Your task to perform on an android device: Show me productivity apps on the Play Store Image 0: 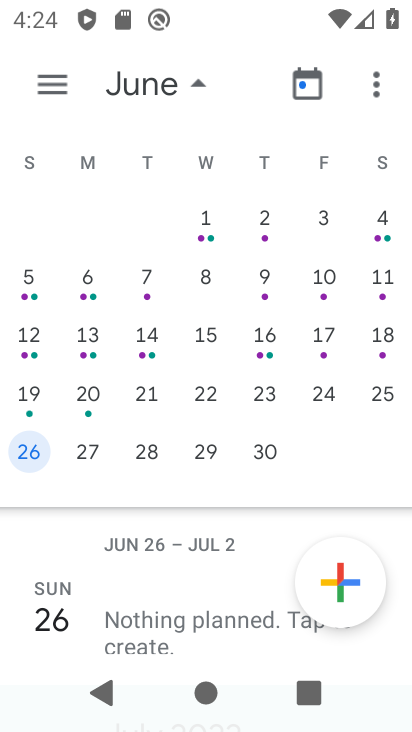
Step 0: press home button
Your task to perform on an android device: Show me productivity apps on the Play Store Image 1: 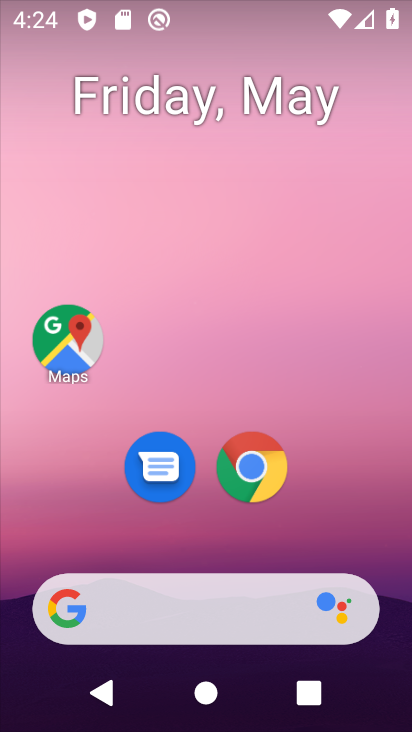
Step 1: drag from (318, 527) to (266, 124)
Your task to perform on an android device: Show me productivity apps on the Play Store Image 2: 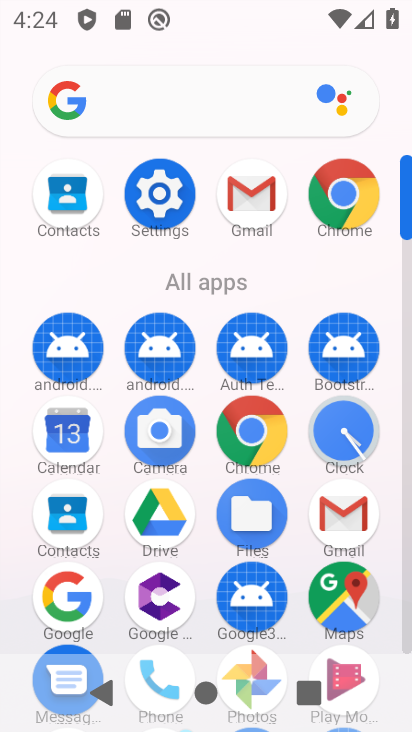
Step 2: drag from (224, 555) to (319, 166)
Your task to perform on an android device: Show me productivity apps on the Play Store Image 3: 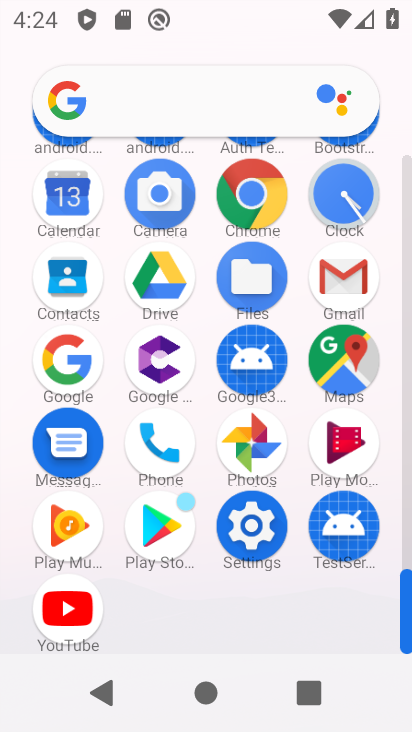
Step 3: click (162, 508)
Your task to perform on an android device: Show me productivity apps on the Play Store Image 4: 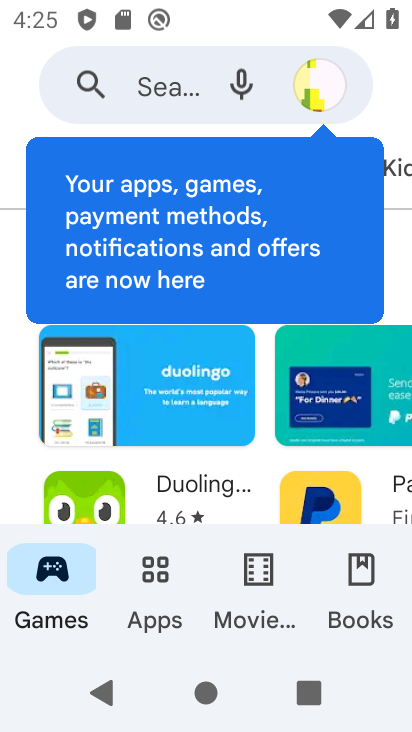
Step 4: drag from (179, 427) to (145, 65)
Your task to perform on an android device: Show me productivity apps on the Play Store Image 5: 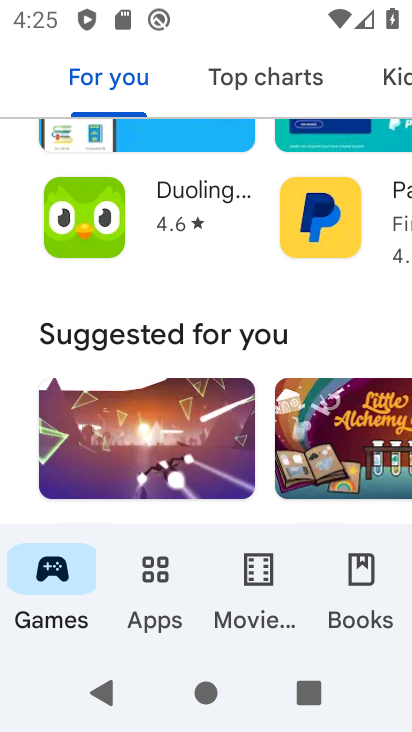
Step 5: drag from (160, 466) to (167, 83)
Your task to perform on an android device: Show me productivity apps on the Play Store Image 6: 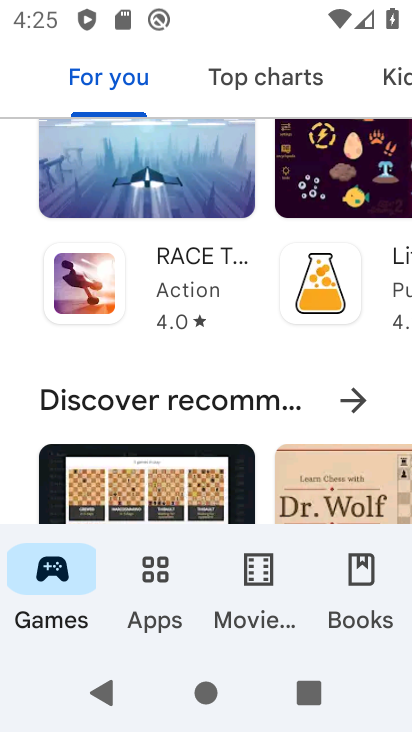
Step 6: drag from (194, 485) to (206, 135)
Your task to perform on an android device: Show me productivity apps on the Play Store Image 7: 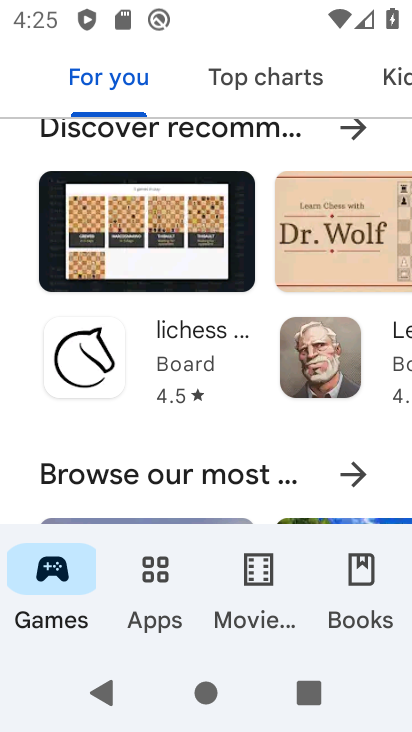
Step 7: drag from (174, 479) to (193, 167)
Your task to perform on an android device: Show me productivity apps on the Play Store Image 8: 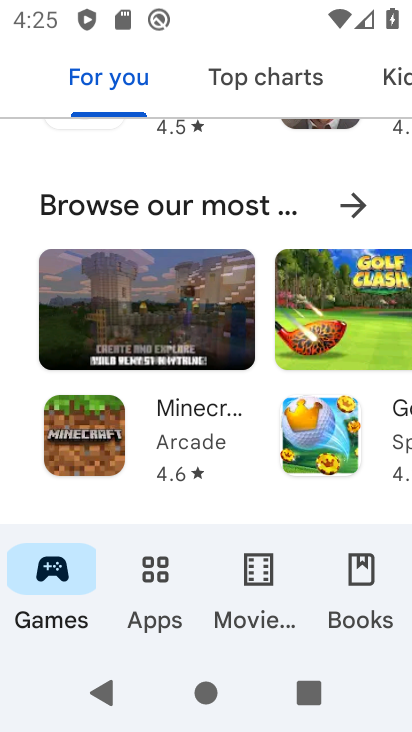
Step 8: drag from (229, 473) to (230, 155)
Your task to perform on an android device: Show me productivity apps on the Play Store Image 9: 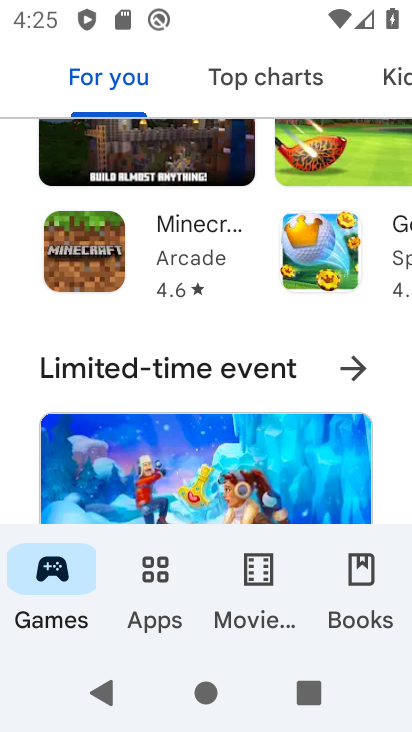
Step 9: drag from (186, 490) to (206, 184)
Your task to perform on an android device: Show me productivity apps on the Play Store Image 10: 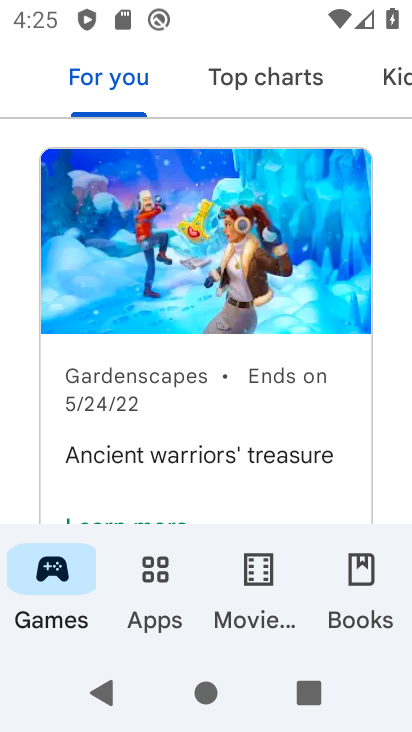
Step 10: drag from (151, 518) to (148, 258)
Your task to perform on an android device: Show me productivity apps on the Play Store Image 11: 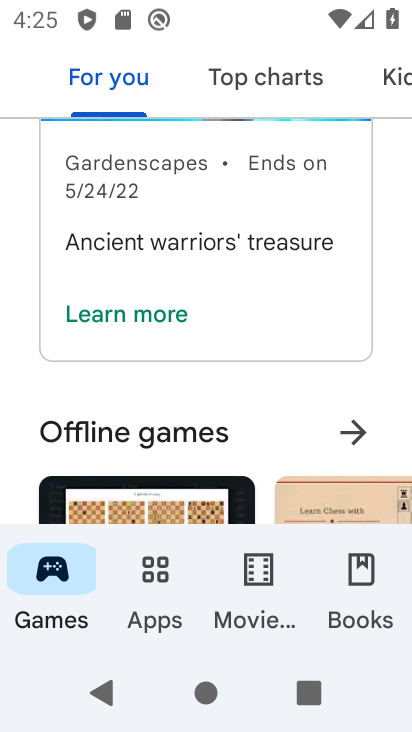
Step 11: drag from (139, 479) to (147, 201)
Your task to perform on an android device: Show me productivity apps on the Play Store Image 12: 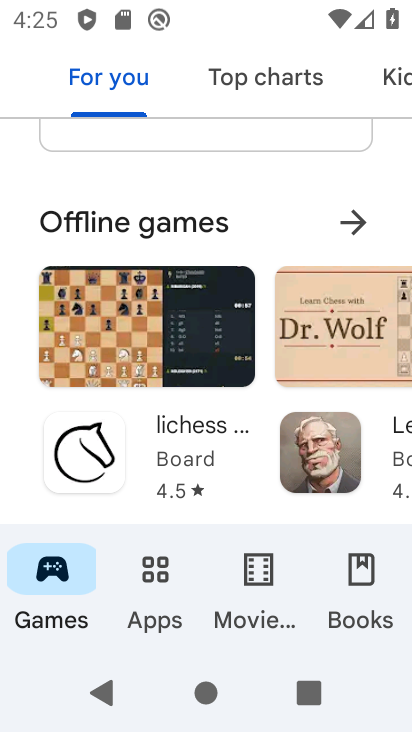
Step 12: drag from (206, 461) to (181, 190)
Your task to perform on an android device: Show me productivity apps on the Play Store Image 13: 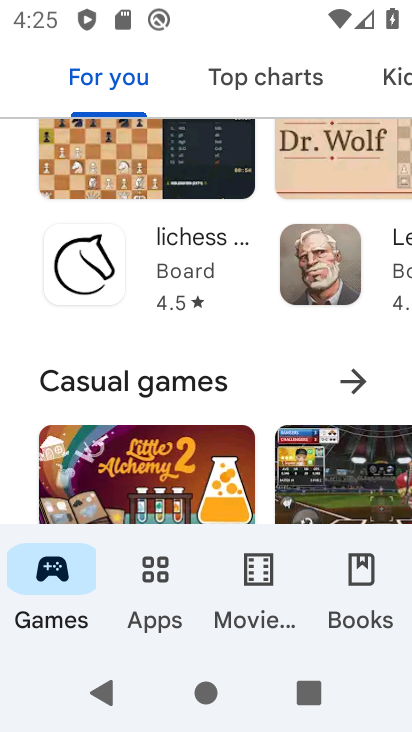
Step 13: drag from (188, 420) to (223, 84)
Your task to perform on an android device: Show me productivity apps on the Play Store Image 14: 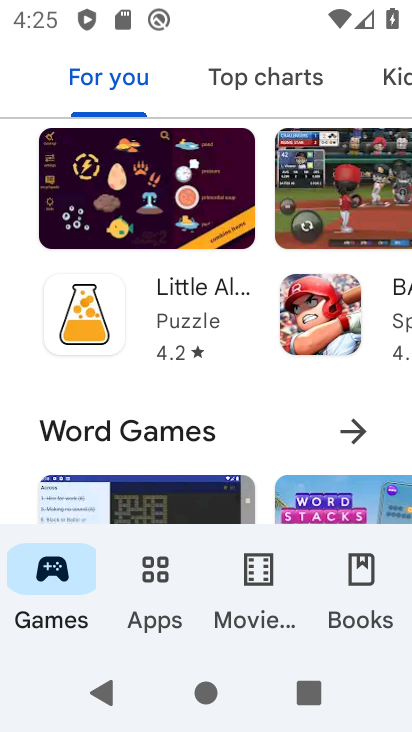
Step 14: drag from (181, 468) to (206, 156)
Your task to perform on an android device: Show me productivity apps on the Play Store Image 15: 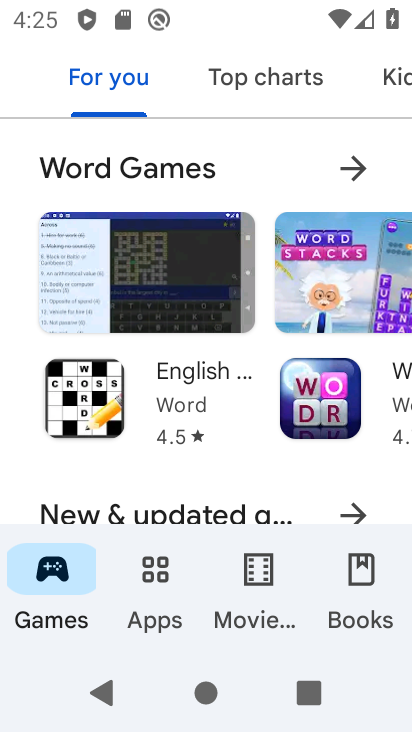
Step 15: drag from (192, 443) to (208, 123)
Your task to perform on an android device: Show me productivity apps on the Play Store Image 16: 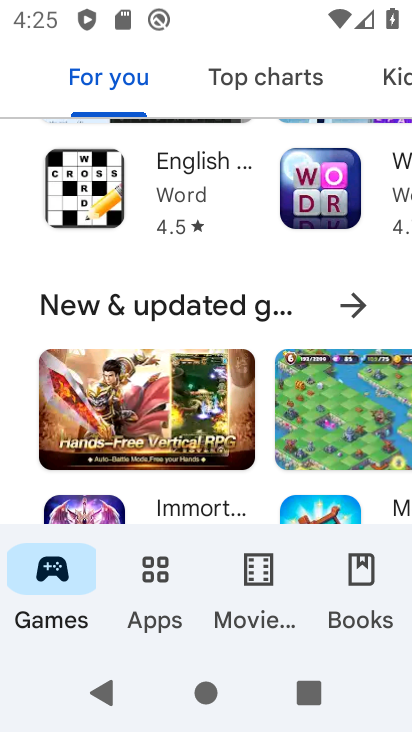
Step 16: drag from (154, 435) to (204, 121)
Your task to perform on an android device: Show me productivity apps on the Play Store Image 17: 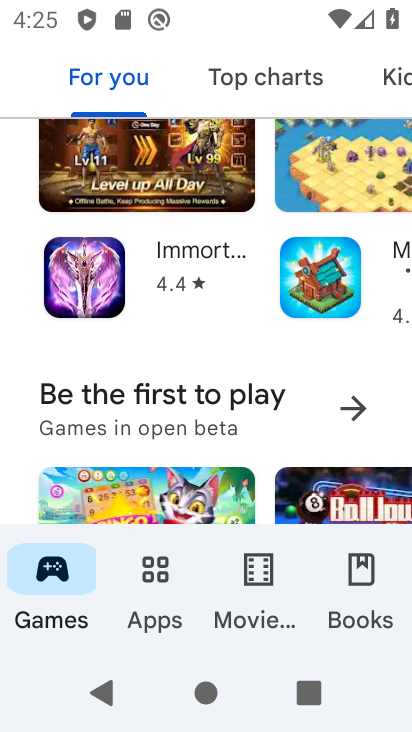
Step 17: drag from (169, 474) to (223, 220)
Your task to perform on an android device: Show me productivity apps on the Play Store Image 18: 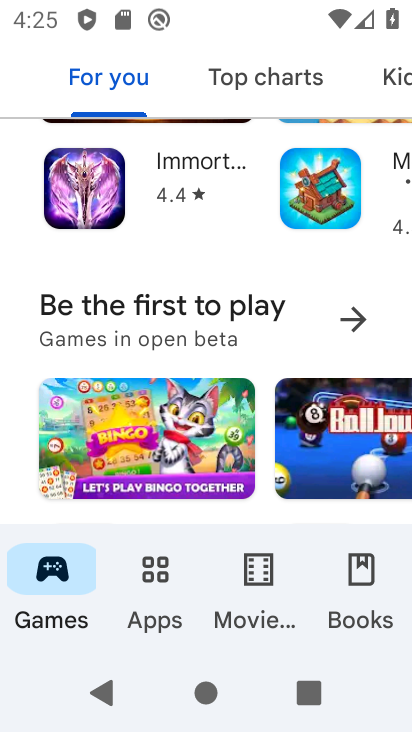
Step 18: drag from (183, 603) to (208, 198)
Your task to perform on an android device: Show me productivity apps on the Play Store Image 19: 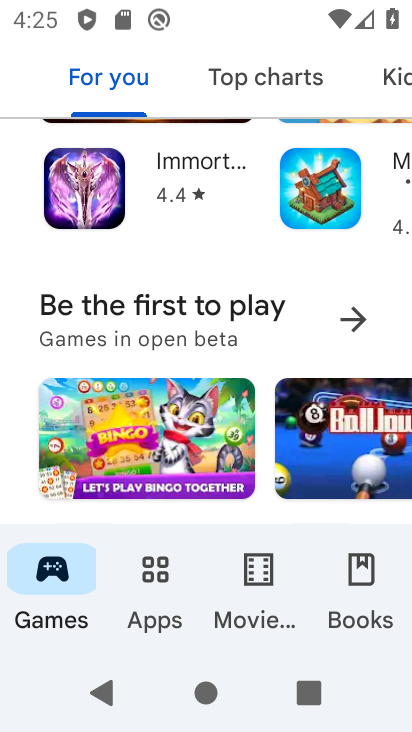
Step 19: drag from (241, 402) to (235, 101)
Your task to perform on an android device: Show me productivity apps on the Play Store Image 20: 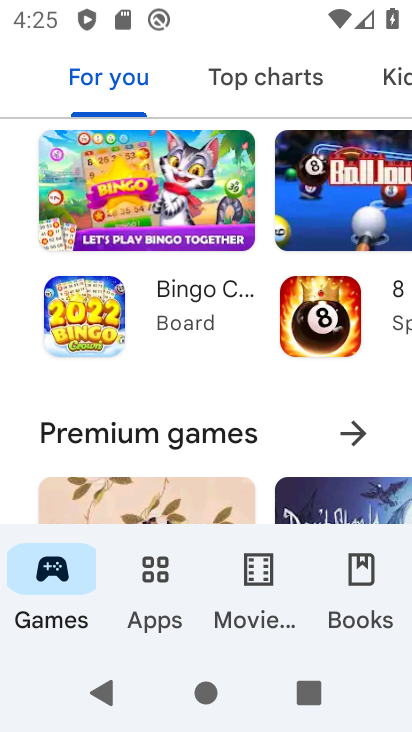
Step 20: drag from (194, 431) to (208, 99)
Your task to perform on an android device: Show me productivity apps on the Play Store Image 21: 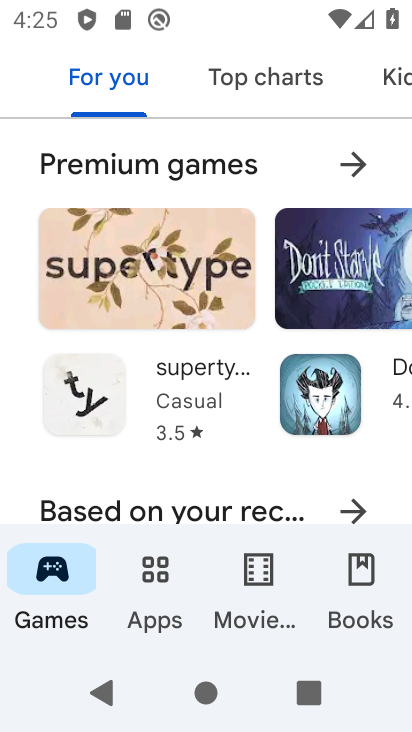
Step 21: drag from (225, 426) to (230, 156)
Your task to perform on an android device: Show me productivity apps on the Play Store Image 22: 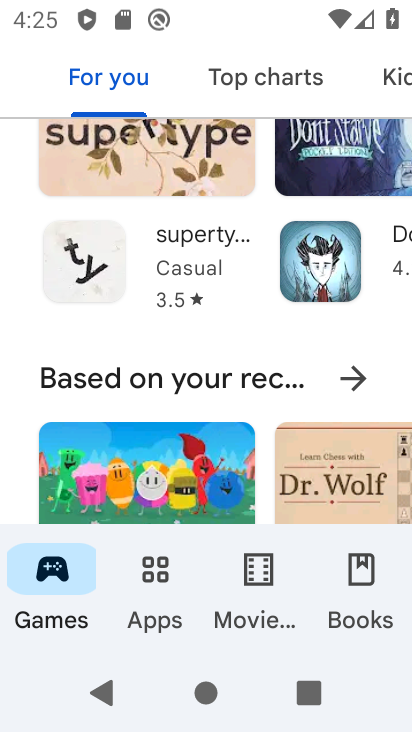
Step 22: drag from (283, 432) to (281, 95)
Your task to perform on an android device: Show me productivity apps on the Play Store Image 23: 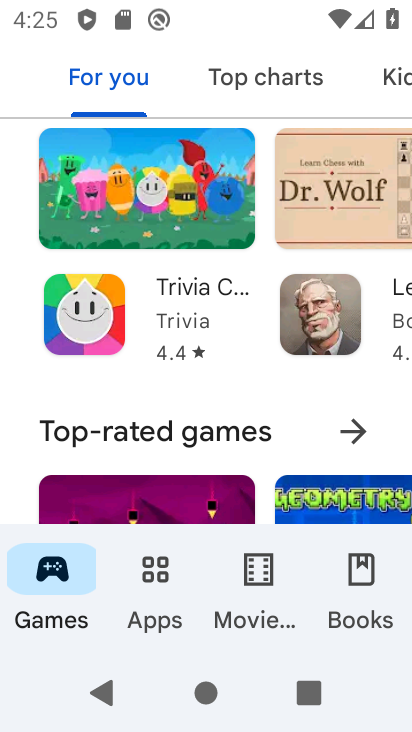
Step 23: drag from (200, 449) to (249, 129)
Your task to perform on an android device: Show me productivity apps on the Play Store Image 24: 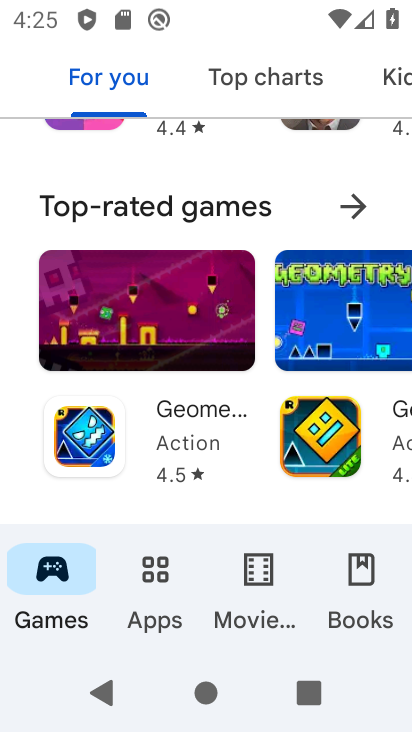
Step 24: drag from (214, 443) to (245, 151)
Your task to perform on an android device: Show me productivity apps on the Play Store Image 25: 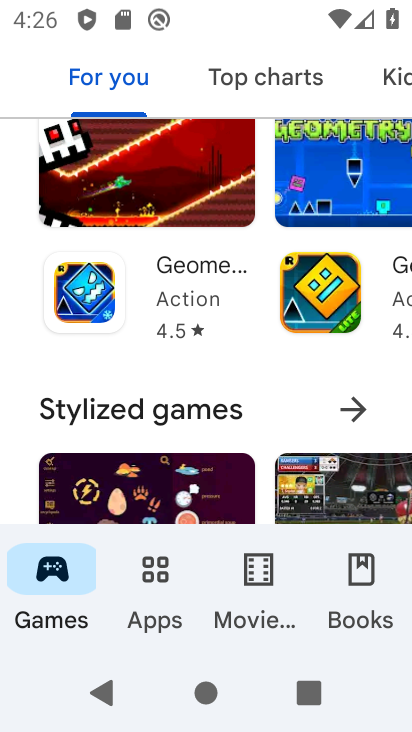
Step 25: drag from (242, 435) to (282, 163)
Your task to perform on an android device: Show me productivity apps on the Play Store Image 26: 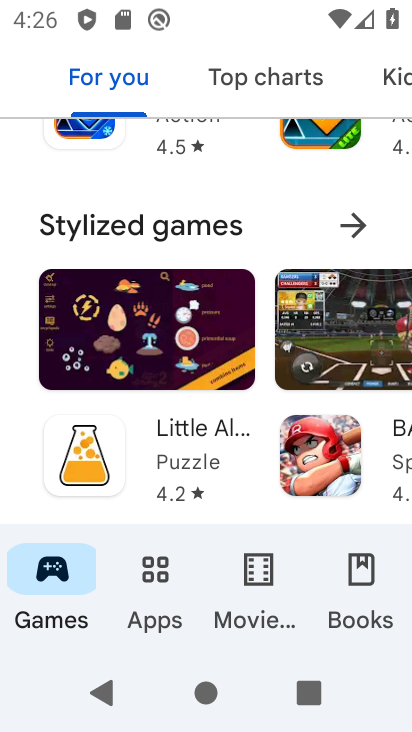
Step 26: drag from (221, 464) to (245, 121)
Your task to perform on an android device: Show me productivity apps on the Play Store Image 27: 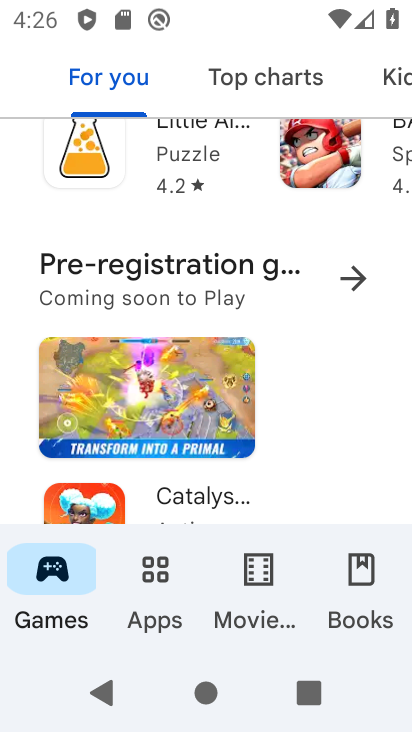
Step 27: drag from (201, 435) to (217, 109)
Your task to perform on an android device: Show me productivity apps on the Play Store Image 28: 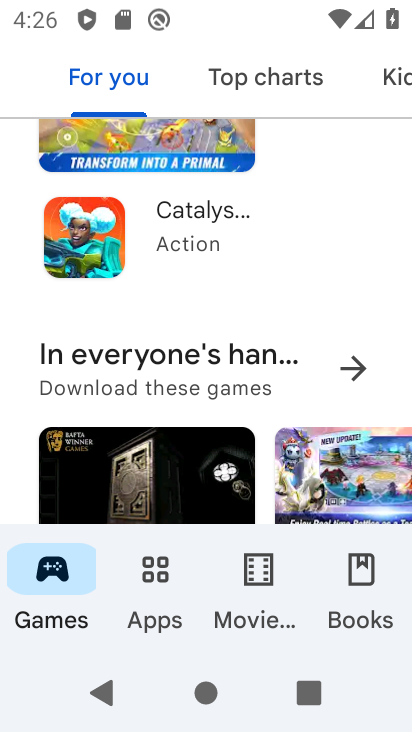
Step 28: drag from (176, 409) to (246, 138)
Your task to perform on an android device: Show me productivity apps on the Play Store Image 29: 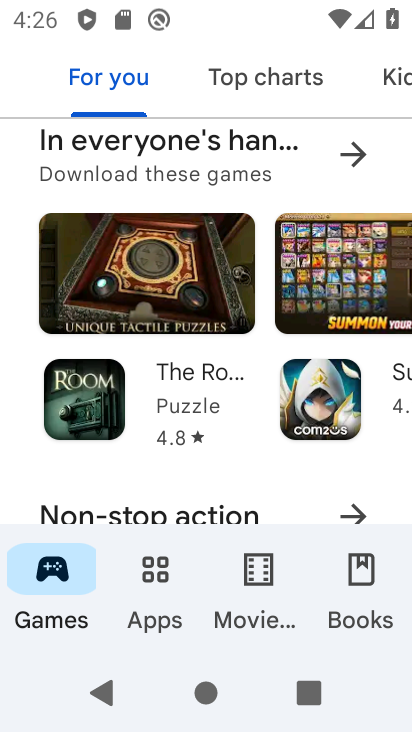
Step 29: drag from (215, 432) to (254, 136)
Your task to perform on an android device: Show me productivity apps on the Play Store Image 30: 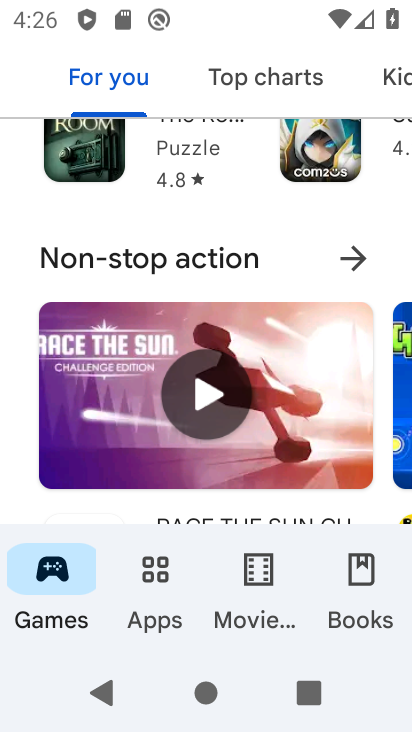
Step 30: drag from (215, 394) to (233, 116)
Your task to perform on an android device: Show me productivity apps on the Play Store Image 31: 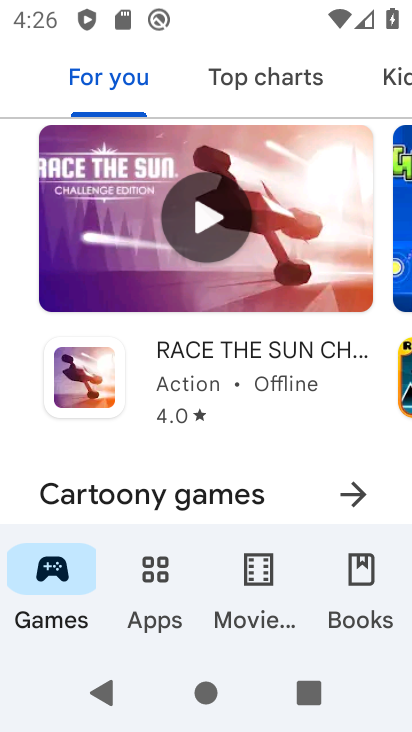
Step 31: drag from (196, 400) to (218, 122)
Your task to perform on an android device: Show me productivity apps on the Play Store Image 32: 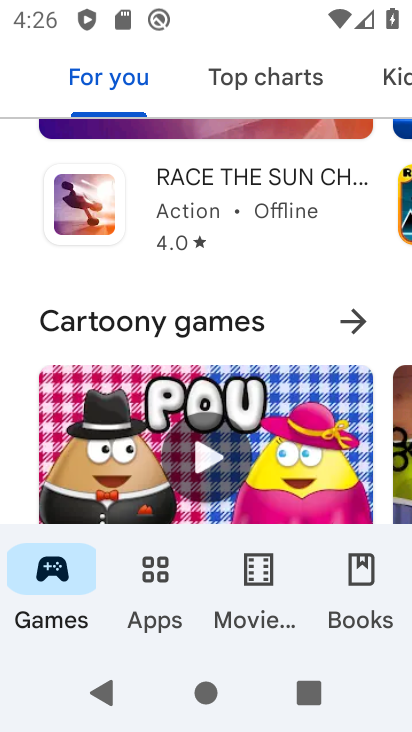
Step 32: drag from (242, 324) to (242, 100)
Your task to perform on an android device: Show me productivity apps on the Play Store Image 33: 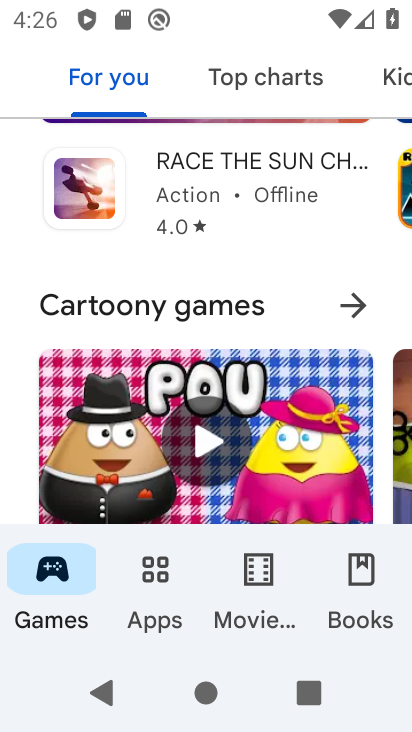
Step 33: drag from (191, 481) to (231, 138)
Your task to perform on an android device: Show me productivity apps on the Play Store Image 34: 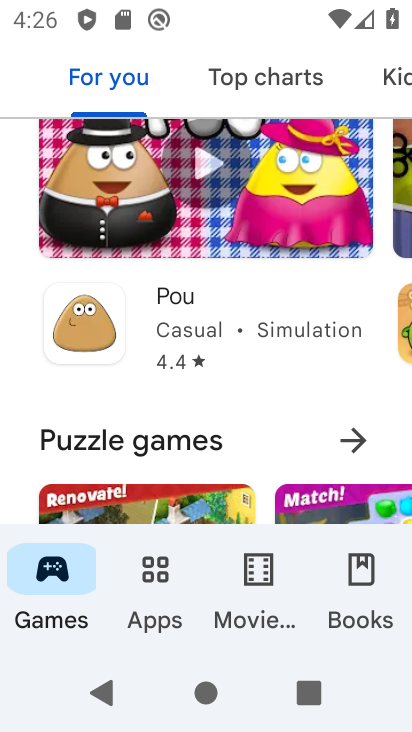
Step 34: drag from (224, 464) to (259, 180)
Your task to perform on an android device: Show me productivity apps on the Play Store Image 35: 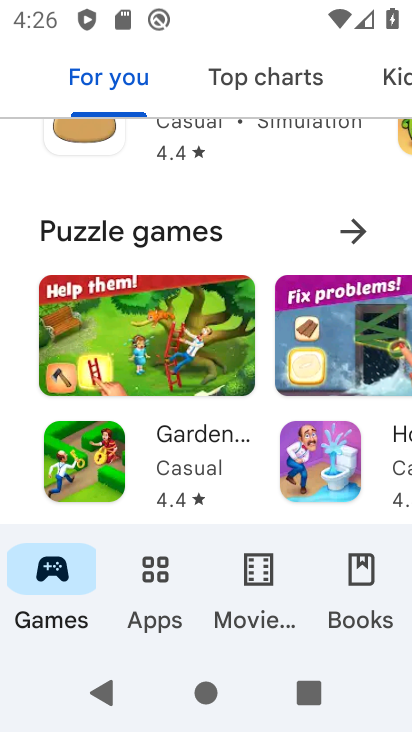
Step 35: drag from (241, 479) to (254, 204)
Your task to perform on an android device: Show me productivity apps on the Play Store Image 36: 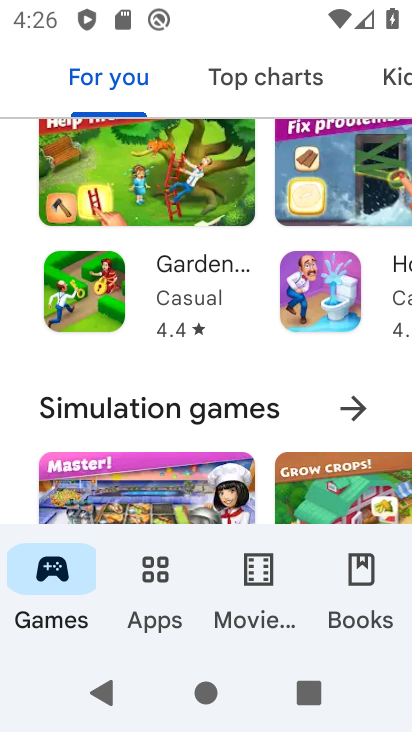
Step 36: drag from (240, 467) to (275, 180)
Your task to perform on an android device: Show me productivity apps on the Play Store Image 37: 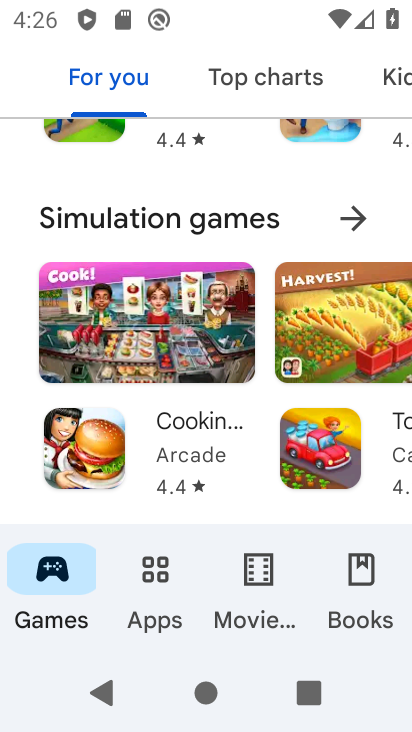
Step 37: drag from (222, 522) to (252, 217)
Your task to perform on an android device: Show me productivity apps on the Play Store Image 38: 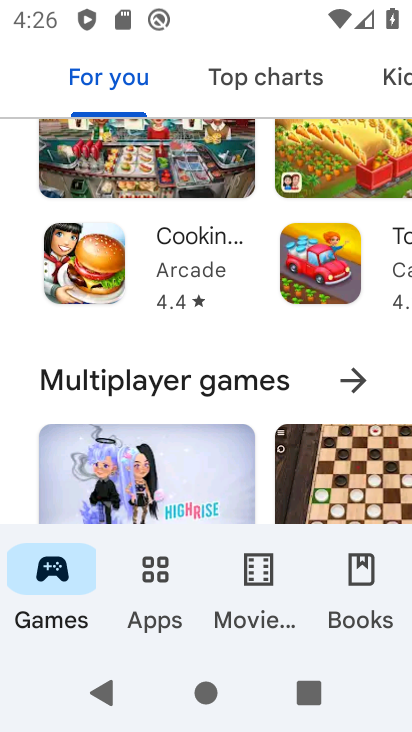
Step 38: drag from (207, 498) to (242, 228)
Your task to perform on an android device: Show me productivity apps on the Play Store Image 39: 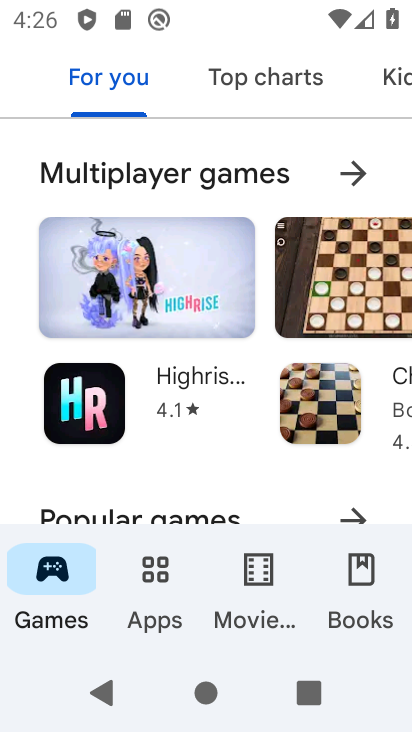
Step 39: drag from (181, 431) to (199, 188)
Your task to perform on an android device: Show me productivity apps on the Play Store Image 40: 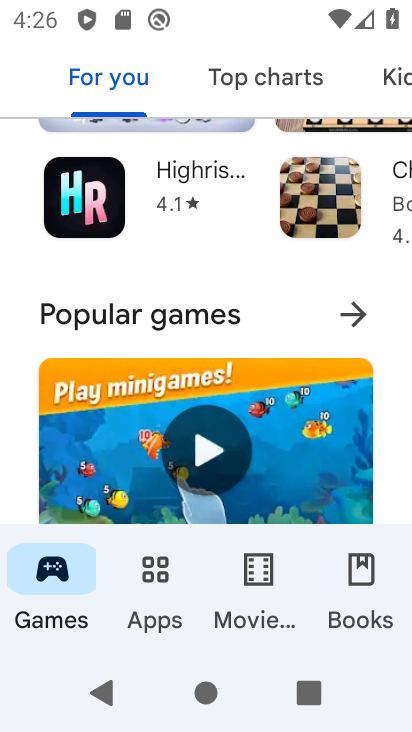
Step 40: drag from (174, 445) to (219, 137)
Your task to perform on an android device: Show me productivity apps on the Play Store Image 41: 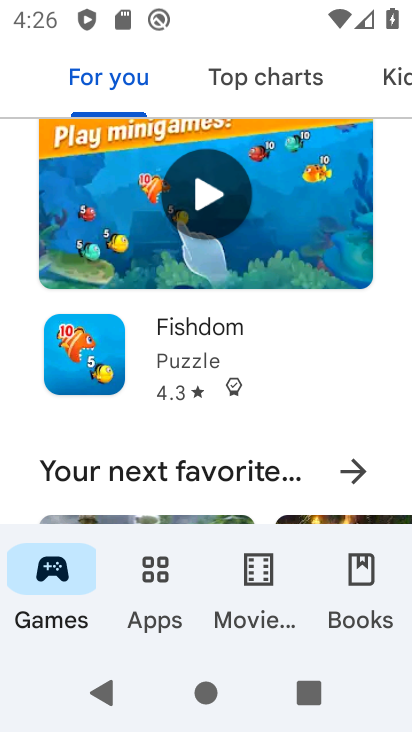
Step 41: drag from (167, 422) to (226, 143)
Your task to perform on an android device: Show me productivity apps on the Play Store Image 42: 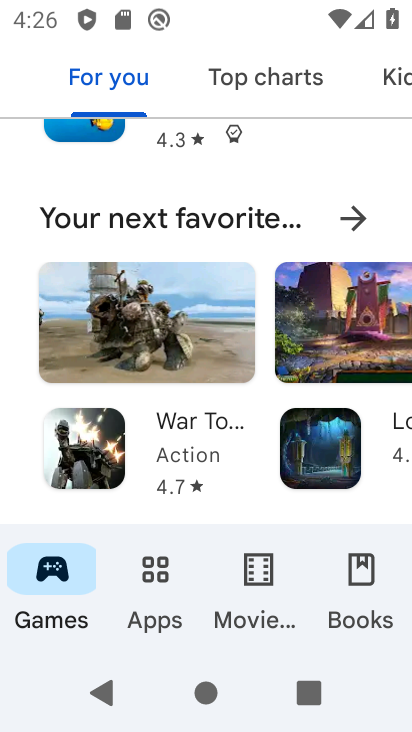
Step 42: drag from (213, 386) to (249, 160)
Your task to perform on an android device: Show me productivity apps on the Play Store Image 43: 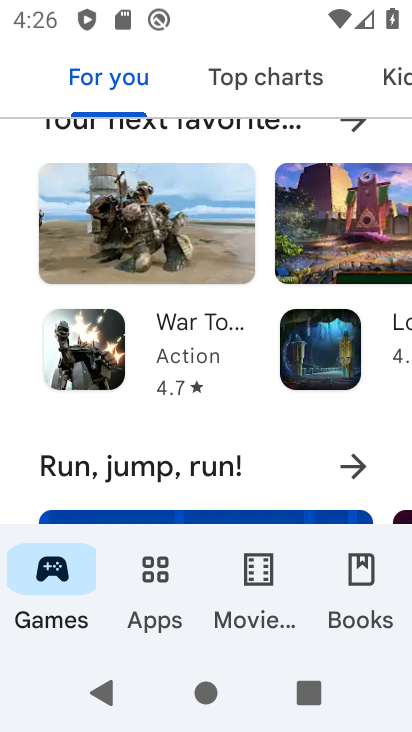
Step 43: drag from (236, 423) to (264, 183)
Your task to perform on an android device: Show me productivity apps on the Play Store Image 44: 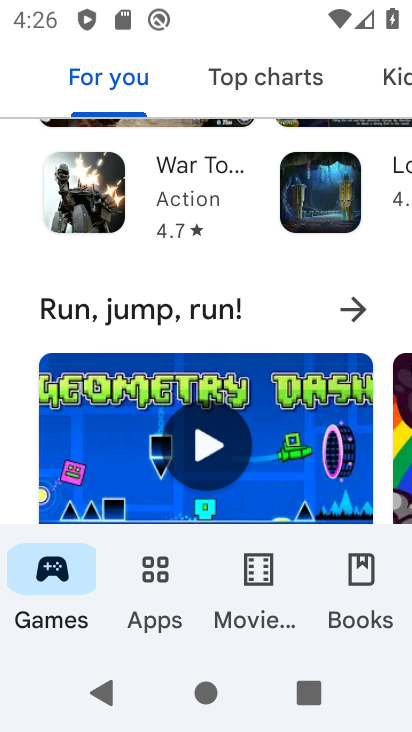
Step 44: drag from (182, 522) to (251, 219)
Your task to perform on an android device: Show me productivity apps on the Play Store Image 45: 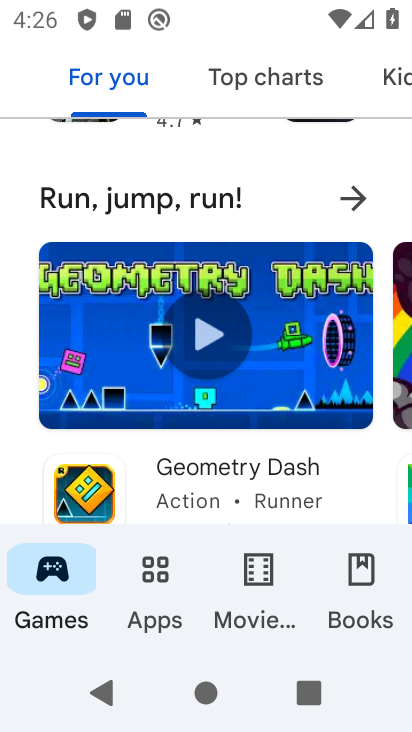
Step 45: drag from (202, 458) to (260, 170)
Your task to perform on an android device: Show me productivity apps on the Play Store Image 46: 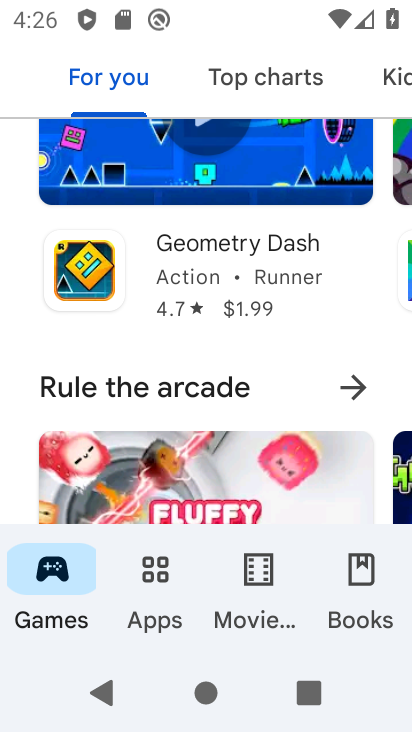
Step 46: drag from (203, 508) to (255, 258)
Your task to perform on an android device: Show me productivity apps on the Play Store Image 47: 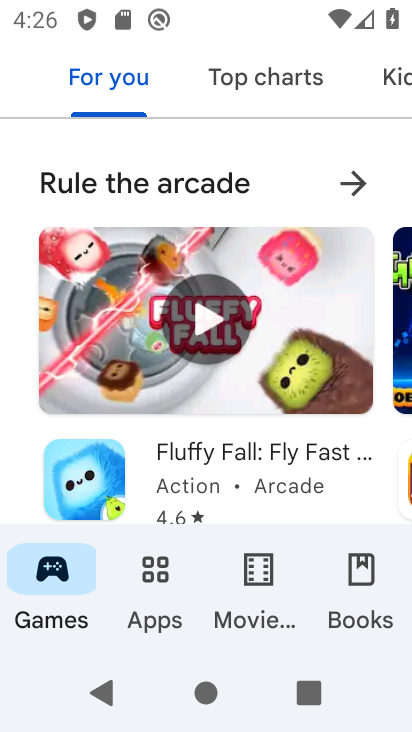
Step 47: drag from (229, 492) to (246, 134)
Your task to perform on an android device: Show me productivity apps on the Play Store Image 48: 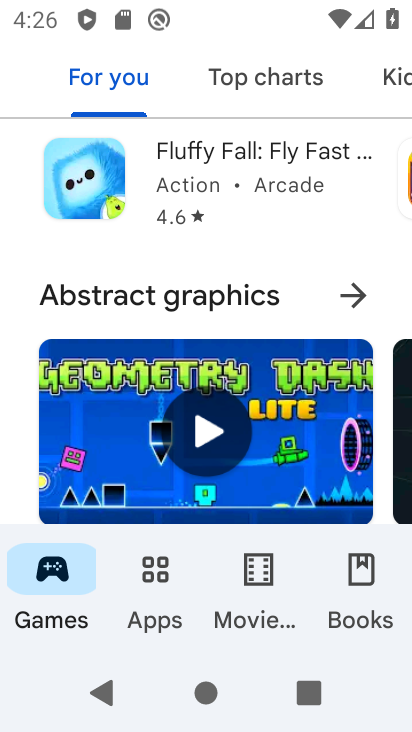
Step 48: drag from (280, 479) to (299, 125)
Your task to perform on an android device: Show me productivity apps on the Play Store Image 49: 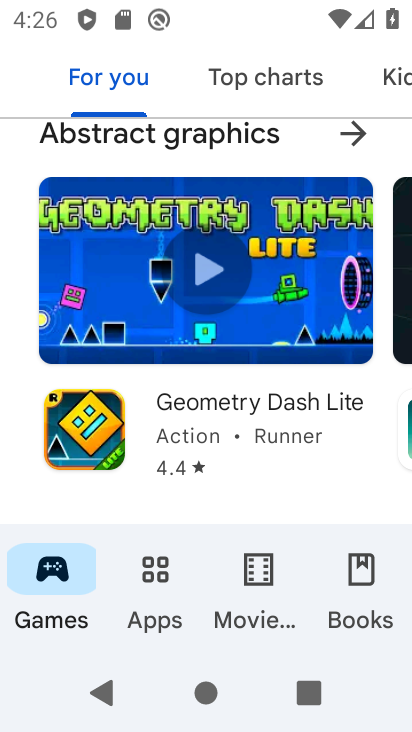
Step 49: drag from (325, 450) to (344, 87)
Your task to perform on an android device: Show me productivity apps on the Play Store Image 50: 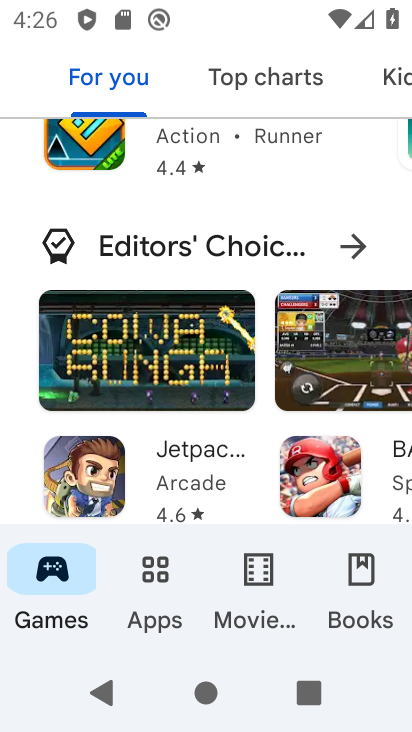
Step 50: drag from (289, 398) to (332, 100)
Your task to perform on an android device: Show me productivity apps on the Play Store Image 51: 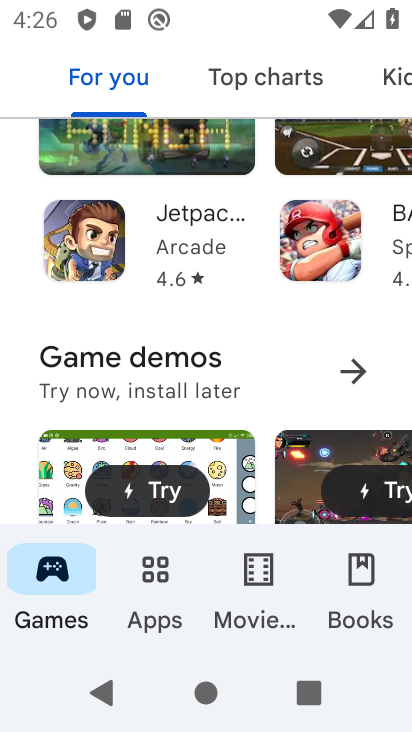
Step 51: drag from (221, 412) to (290, 143)
Your task to perform on an android device: Show me productivity apps on the Play Store Image 52: 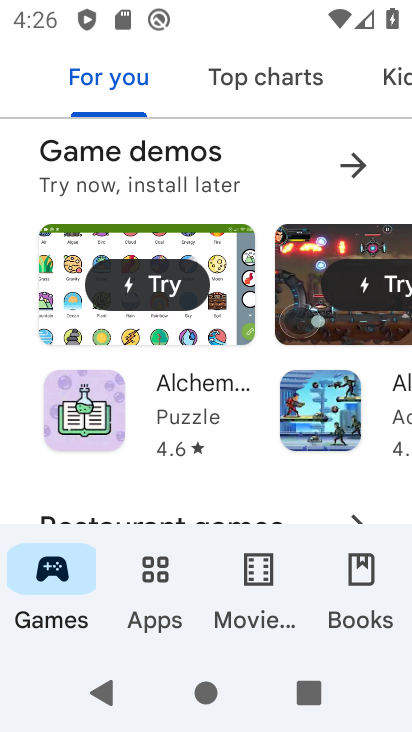
Step 52: drag from (259, 168) to (282, 124)
Your task to perform on an android device: Show me productivity apps on the Play Store Image 53: 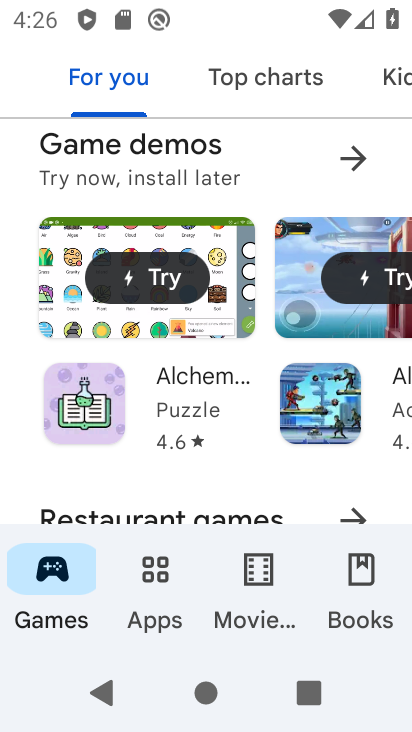
Step 53: drag from (169, 469) to (223, 160)
Your task to perform on an android device: Show me productivity apps on the Play Store Image 54: 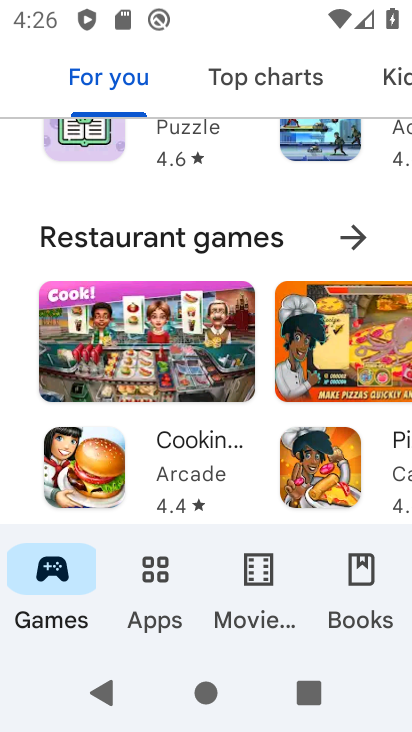
Step 54: drag from (162, 488) to (237, 194)
Your task to perform on an android device: Show me productivity apps on the Play Store Image 55: 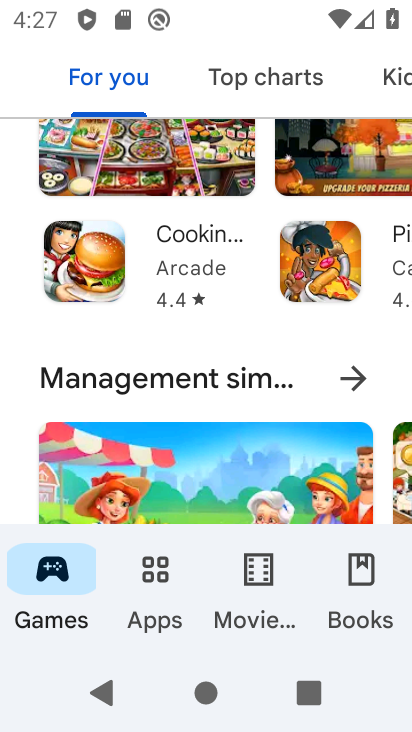
Step 55: drag from (177, 485) to (213, 258)
Your task to perform on an android device: Show me productivity apps on the Play Store Image 56: 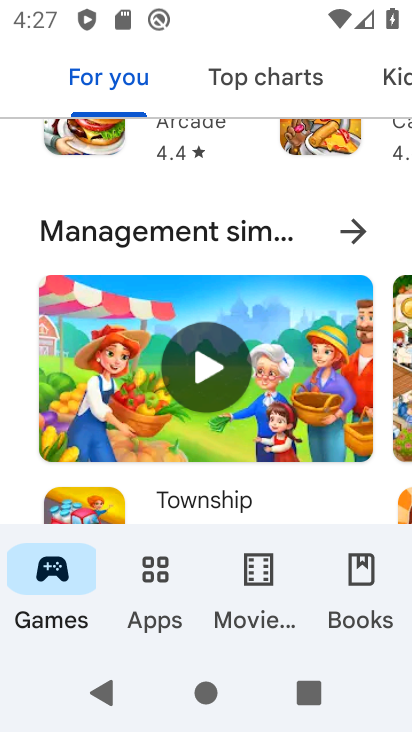
Step 56: click (162, 601)
Your task to perform on an android device: Show me productivity apps on the Play Store Image 57: 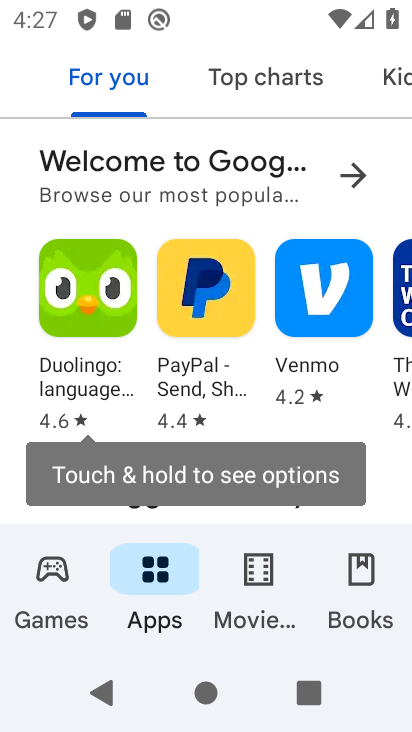
Step 57: drag from (201, 452) to (243, 92)
Your task to perform on an android device: Show me productivity apps on the Play Store Image 58: 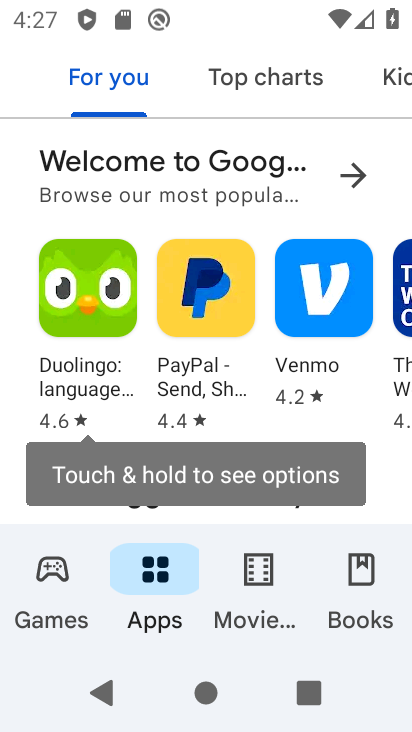
Step 58: drag from (242, 443) to (254, 133)
Your task to perform on an android device: Show me productivity apps on the Play Store Image 59: 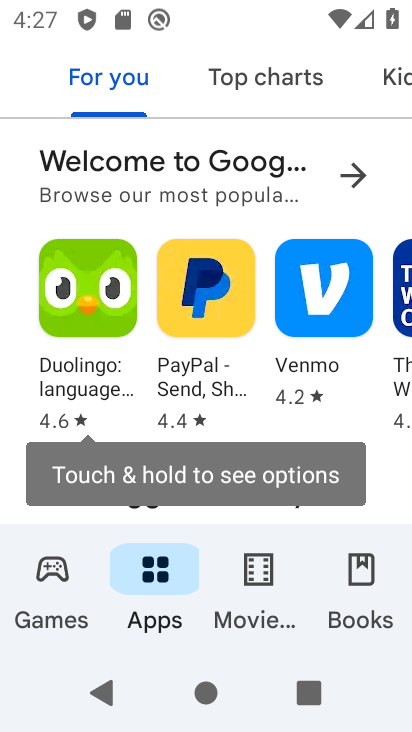
Step 59: click (162, 566)
Your task to perform on an android device: Show me productivity apps on the Play Store Image 60: 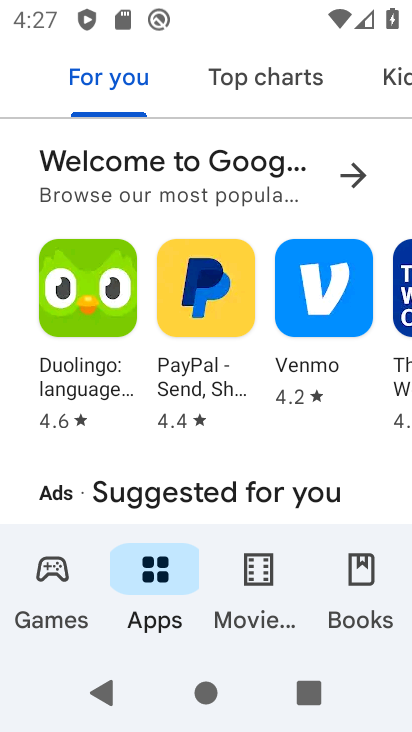
Step 60: task complete